Your task to perform on an android device: What's the weather today? Image 0: 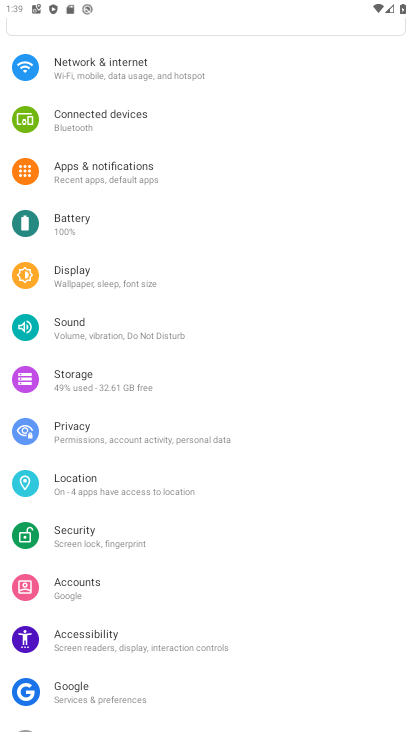
Step 0: press home button
Your task to perform on an android device: What's the weather today? Image 1: 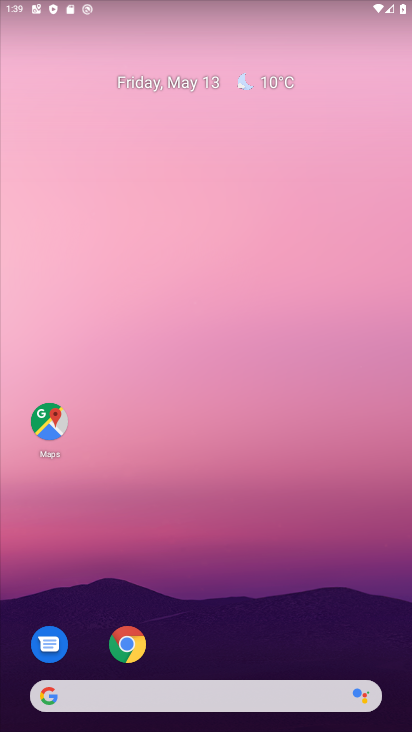
Step 1: drag from (280, 718) to (304, 115)
Your task to perform on an android device: What's the weather today? Image 2: 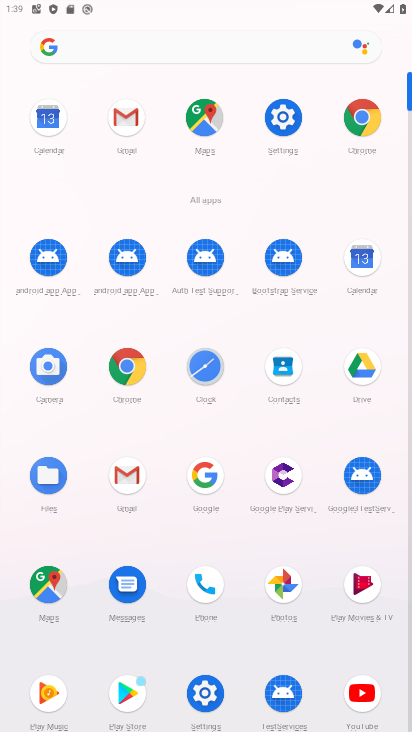
Step 2: click (134, 376)
Your task to perform on an android device: What's the weather today? Image 3: 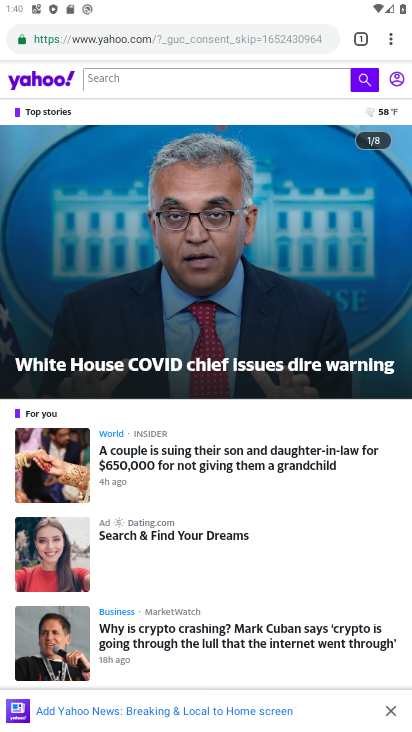
Step 3: type "whats the weather today"
Your task to perform on an android device: What's the weather today? Image 4: 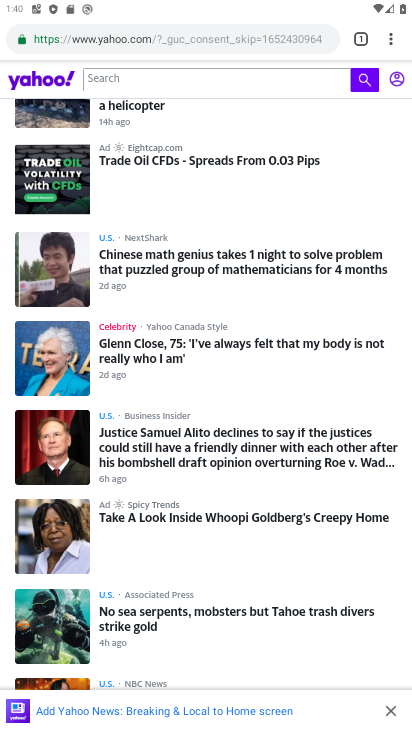
Step 4: click (173, 43)
Your task to perform on an android device: What's the weather today? Image 5: 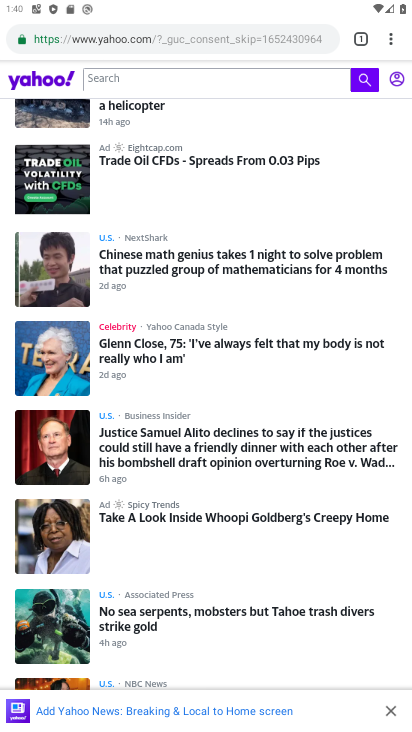
Step 5: click (173, 43)
Your task to perform on an android device: What's the weather today? Image 6: 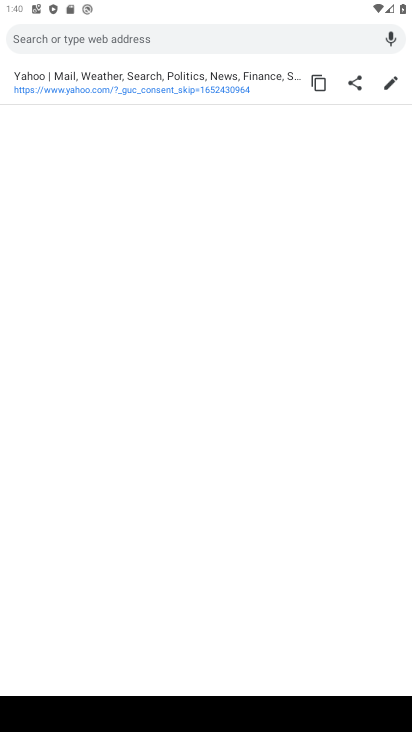
Step 6: type "whats the weather today"
Your task to perform on an android device: What's the weather today? Image 7: 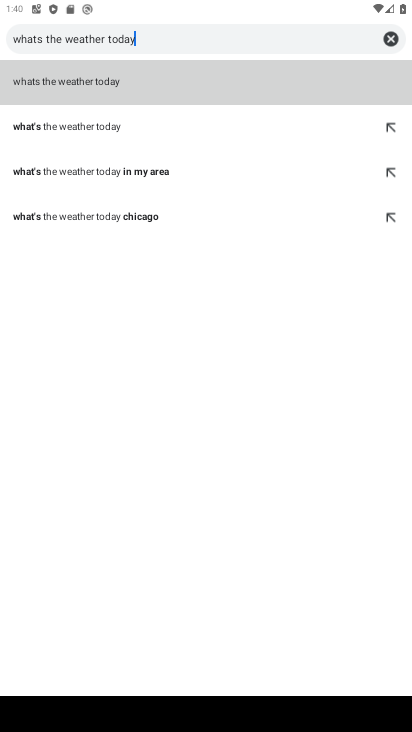
Step 7: click (119, 83)
Your task to perform on an android device: What's the weather today? Image 8: 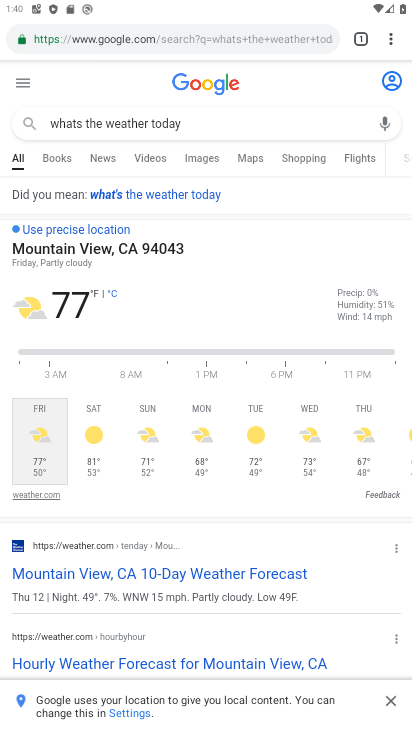
Step 8: task complete